Your task to perform on an android device: Open the calendar and show me this week's events Image 0: 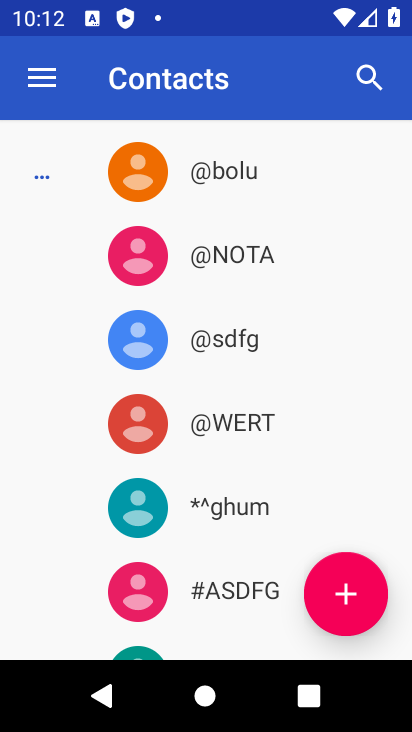
Step 0: click (347, 12)
Your task to perform on an android device: Open the calendar and show me this week's events Image 1: 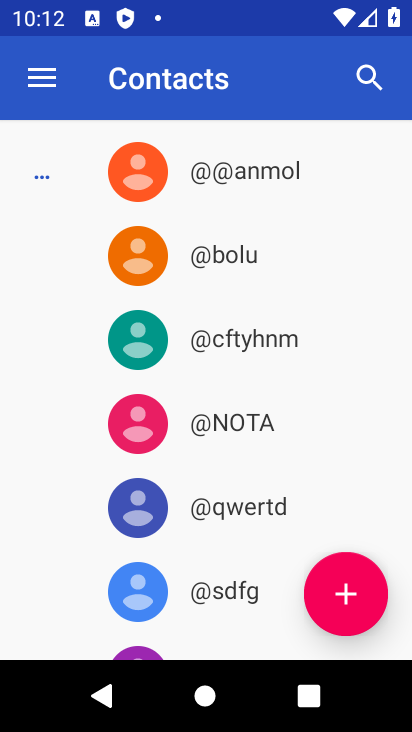
Step 1: press home button
Your task to perform on an android device: Open the calendar and show me this week's events Image 2: 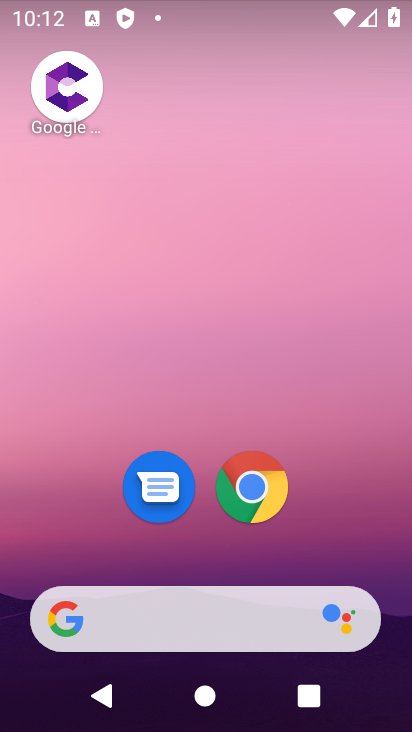
Step 2: drag from (243, 536) to (222, 62)
Your task to perform on an android device: Open the calendar and show me this week's events Image 3: 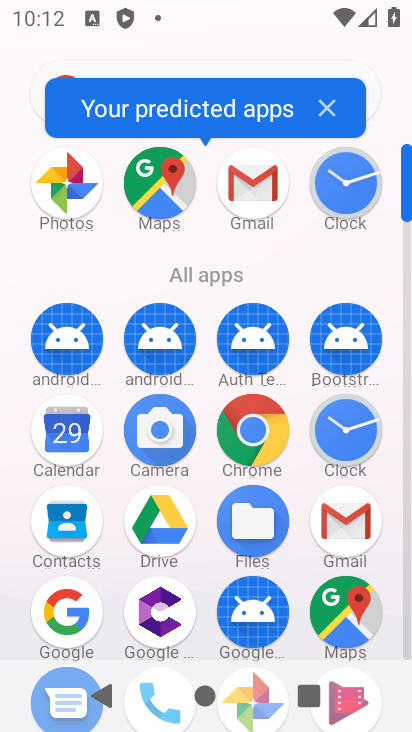
Step 3: click (80, 453)
Your task to perform on an android device: Open the calendar and show me this week's events Image 4: 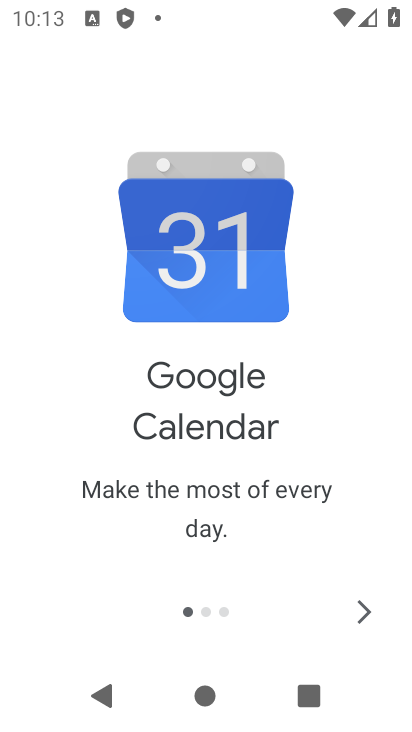
Step 4: click (364, 602)
Your task to perform on an android device: Open the calendar and show me this week's events Image 5: 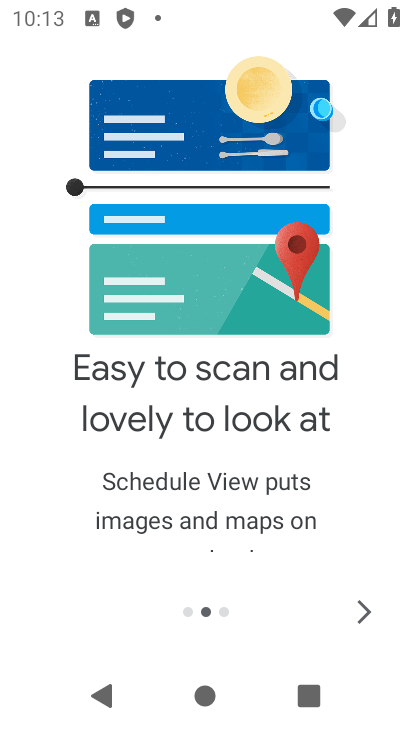
Step 5: click (365, 612)
Your task to perform on an android device: Open the calendar and show me this week's events Image 6: 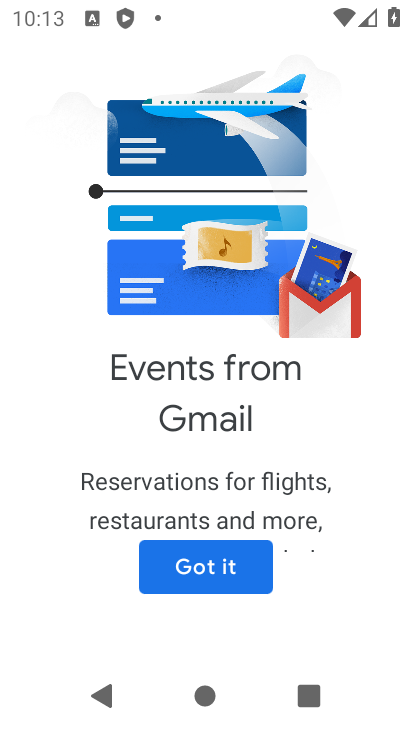
Step 6: click (189, 583)
Your task to perform on an android device: Open the calendar and show me this week's events Image 7: 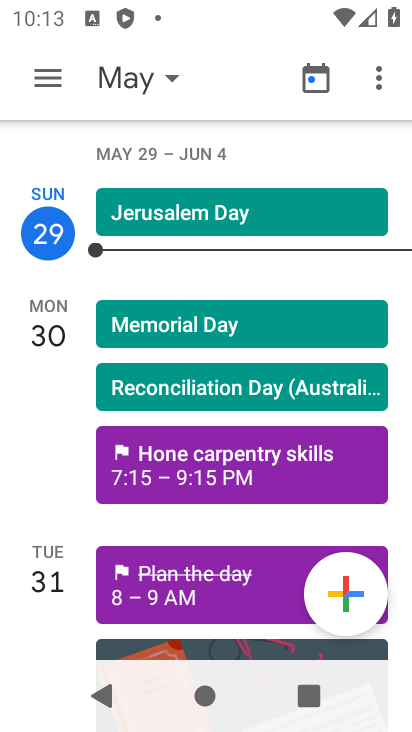
Step 7: task complete